Your task to perform on an android device: Go to ESPN.com Image 0: 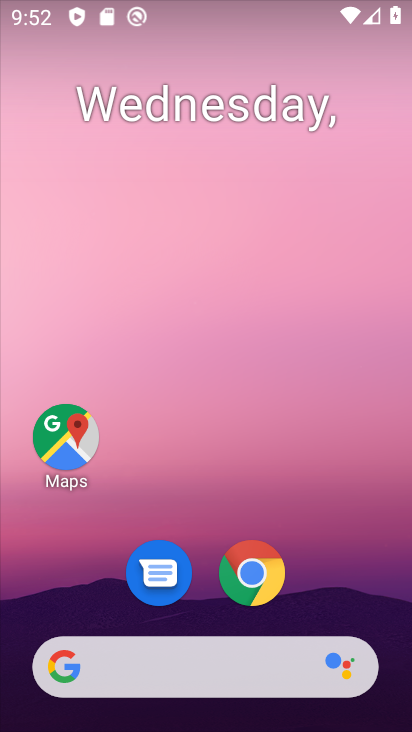
Step 0: drag from (367, 602) to (357, 121)
Your task to perform on an android device: Go to ESPN.com Image 1: 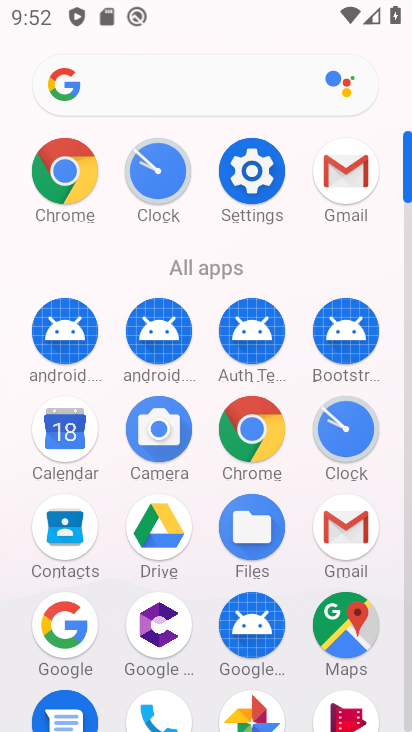
Step 1: drag from (295, 552) to (298, 294)
Your task to perform on an android device: Go to ESPN.com Image 2: 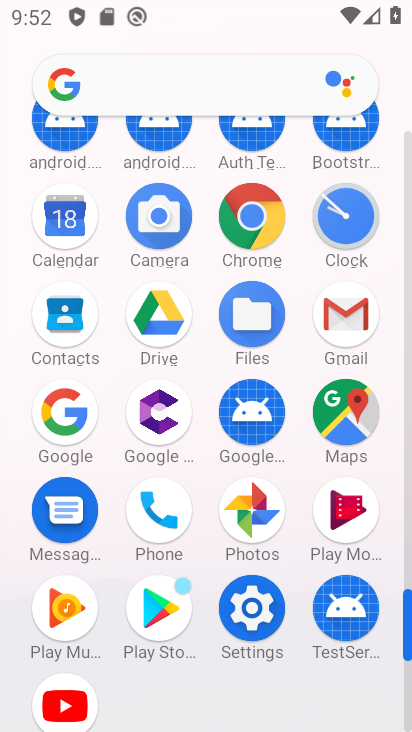
Step 2: click (259, 223)
Your task to perform on an android device: Go to ESPN.com Image 3: 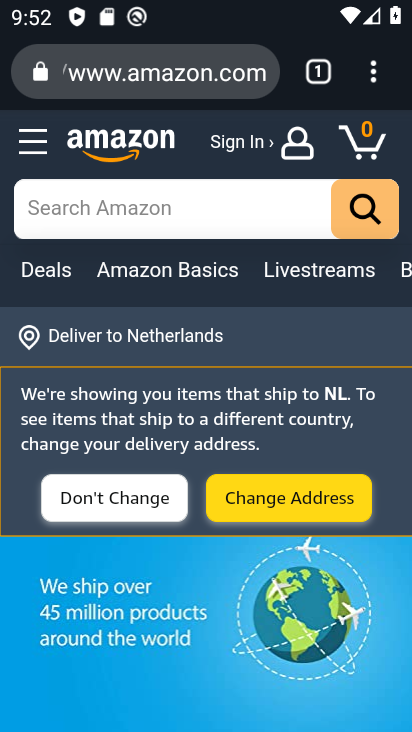
Step 3: press back button
Your task to perform on an android device: Go to ESPN.com Image 4: 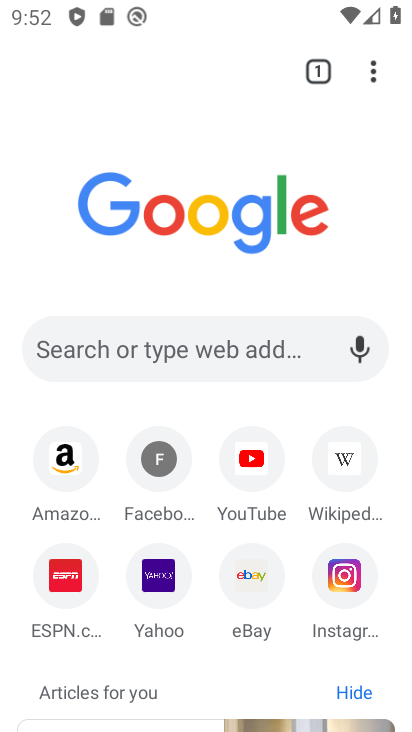
Step 4: click (76, 601)
Your task to perform on an android device: Go to ESPN.com Image 5: 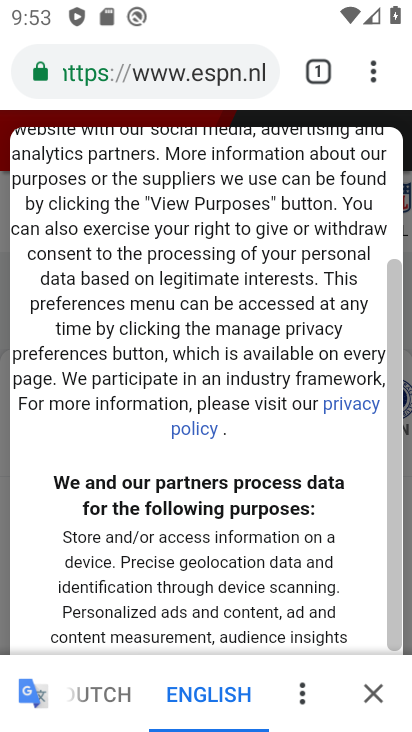
Step 5: task complete